Your task to perform on an android device: What's on my calendar tomorrow? Image 0: 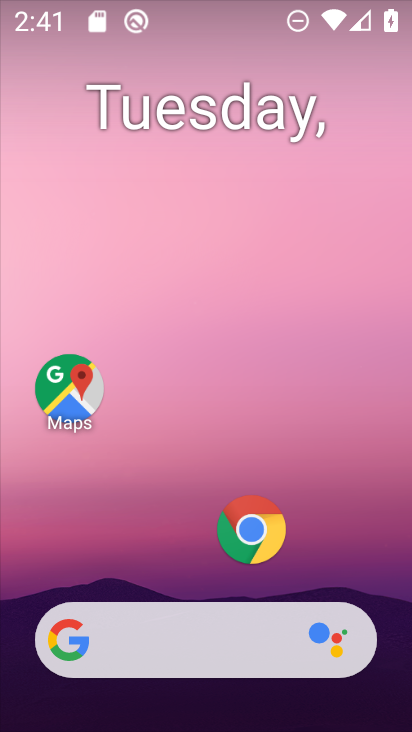
Step 0: drag from (190, 600) to (289, 145)
Your task to perform on an android device: What's on my calendar tomorrow? Image 1: 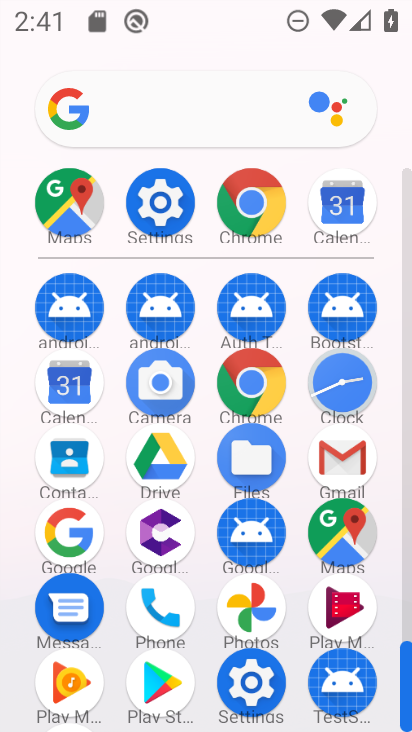
Step 1: click (85, 387)
Your task to perform on an android device: What's on my calendar tomorrow? Image 2: 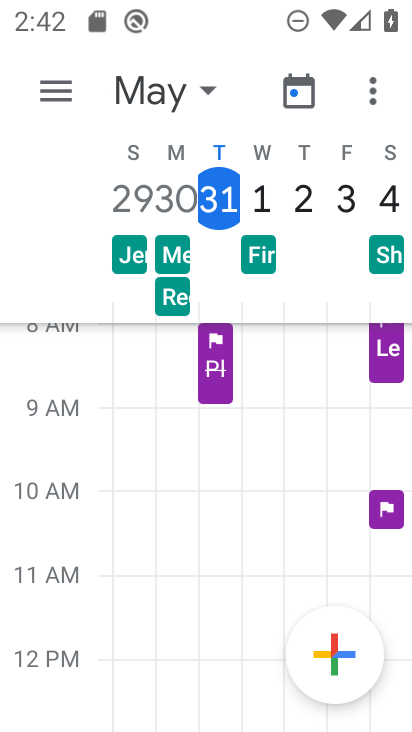
Step 2: click (47, 95)
Your task to perform on an android device: What's on my calendar tomorrow? Image 3: 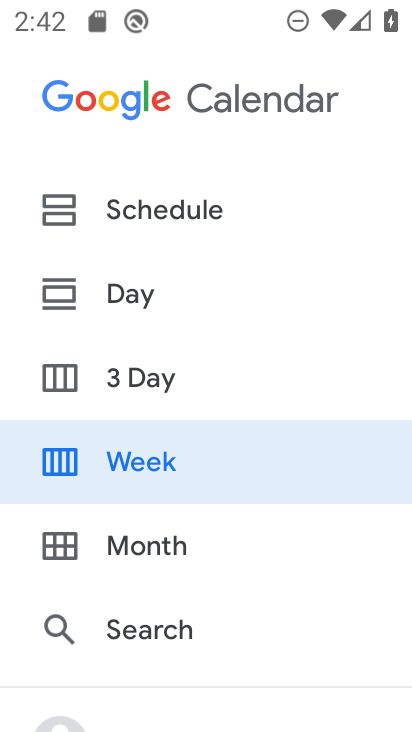
Step 3: click (153, 220)
Your task to perform on an android device: What's on my calendar tomorrow? Image 4: 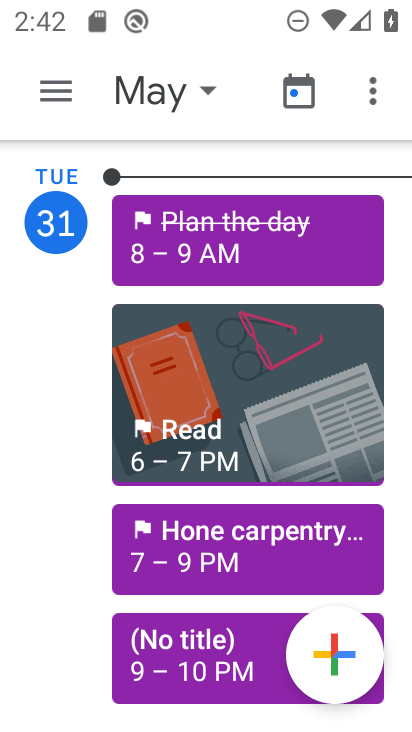
Step 4: click (68, 97)
Your task to perform on an android device: What's on my calendar tomorrow? Image 5: 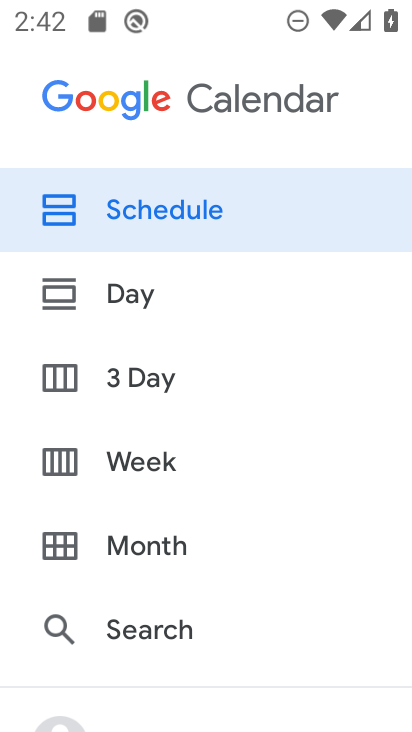
Step 5: click (144, 377)
Your task to perform on an android device: What's on my calendar tomorrow? Image 6: 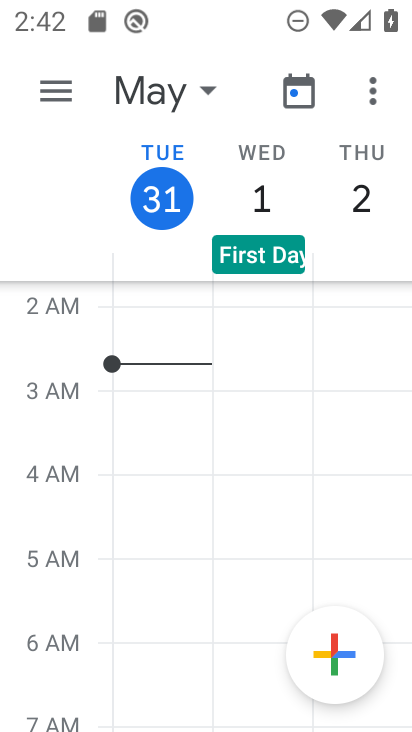
Step 6: click (256, 193)
Your task to perform on an android device: What's on my calendar tomorrow? Image 7: 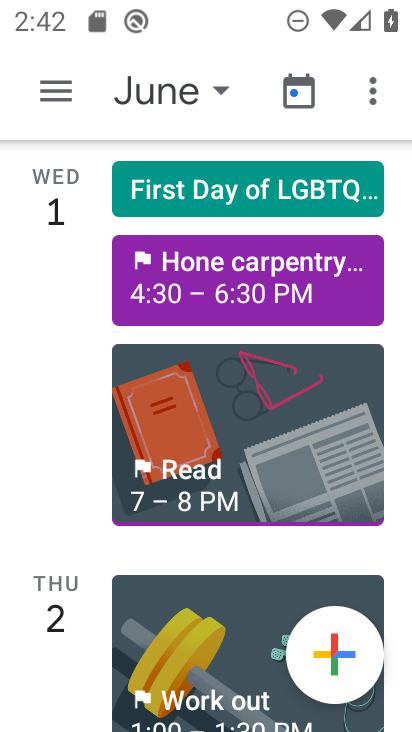
Step 7: task complete